Your task to perform on an android device: Open the phone app and click the voicemail tab. Image 0: 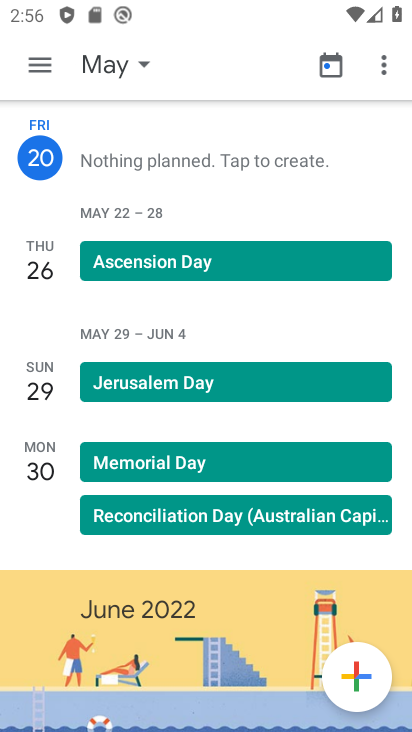
Step 0: press home button
Your task to perform on an android device: Open the phone app and click the voicemail tab. Image 1: 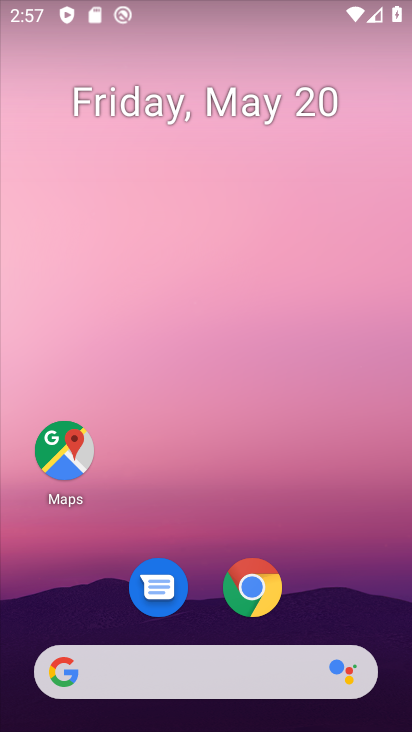
Step 1: drag from (218, 686) to (264, 104)
Your task to perform on an android device: Open the phone app and click the voicemail tab. Image 2: 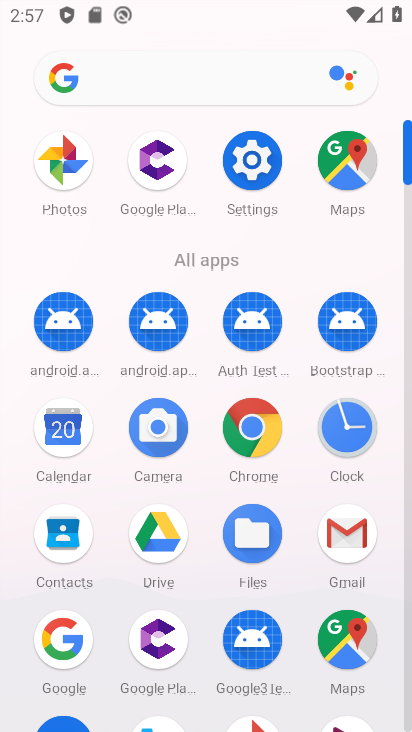
Step 2: drag from (238, 441) to (238, 94)
Your task to perform on an android device: Open the phone app and click the voicemail tab. Image 3: 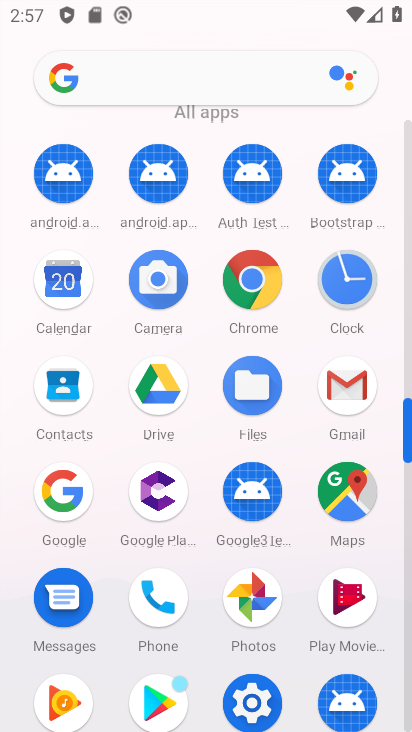
Step 3: click (152, 598)
Your task to perform on an android device: Open the phone app and click the voicemail tab. Image 4: 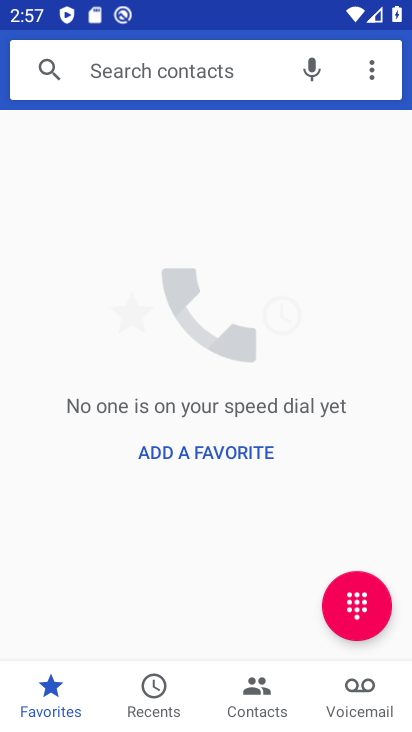
Step 4: click (370, 683)
Your task to perform on an android device: Open the phone app and click the voicemail tab. Image 5: 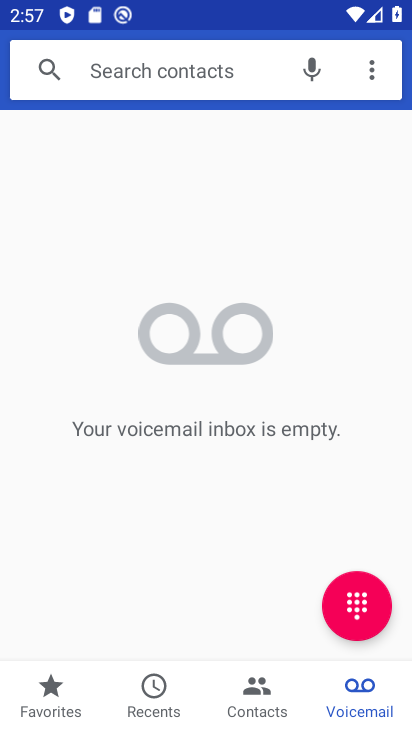
Step 5: task complete